Your task to perform on an android device: Go to eBay Image 0: 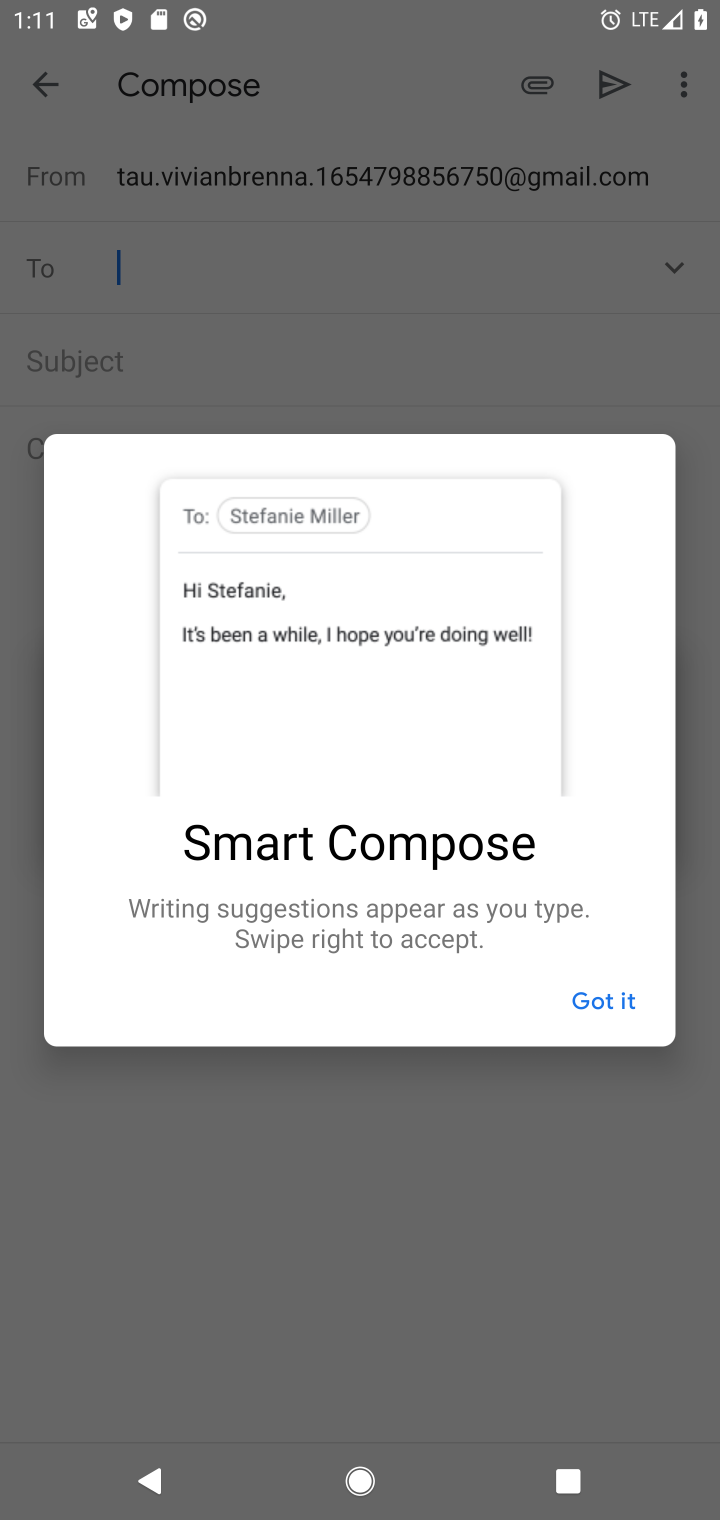
Step 0: press home button
Your task to perform on an android device: Go to eBay Image 1: 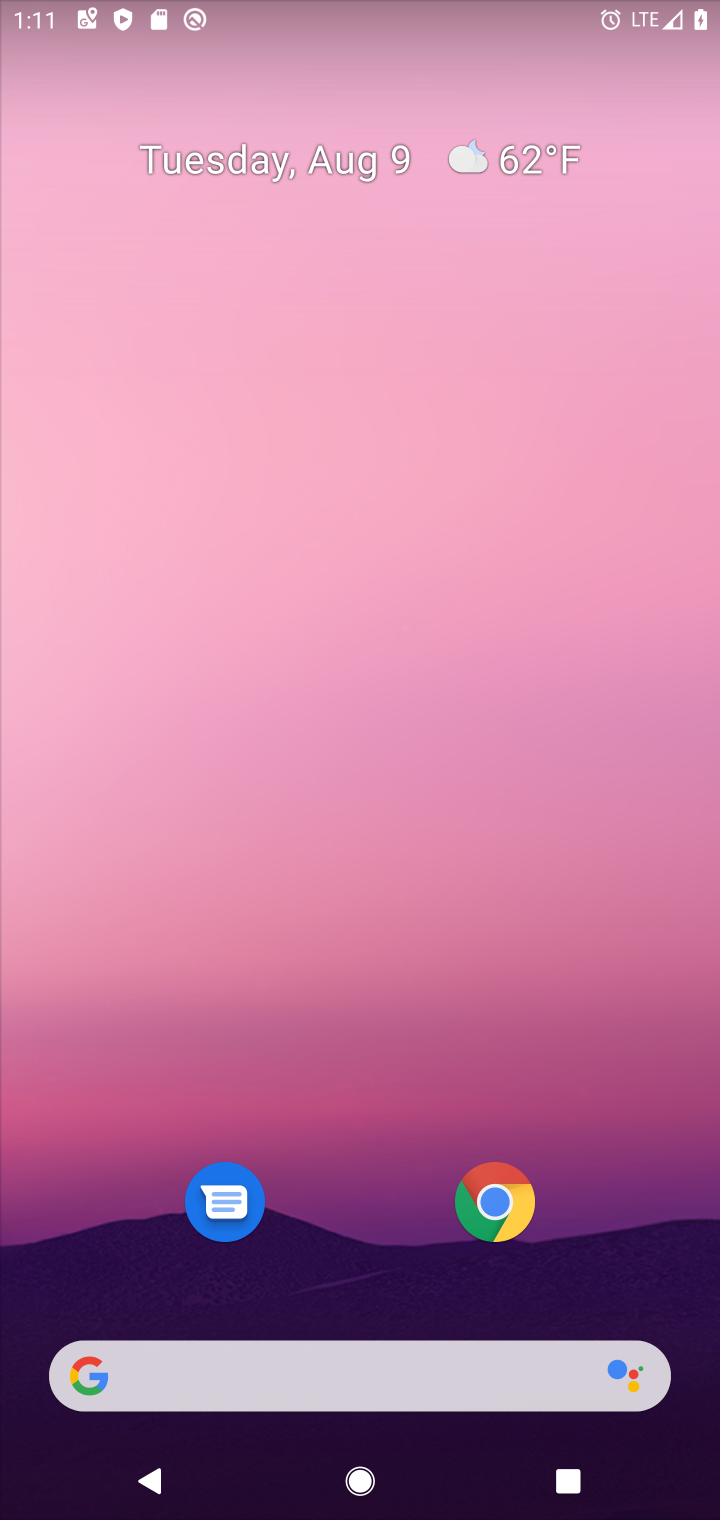
Step 1: click (501, 1201)
Your task to perform on an android device: Go to eBay Image 2: 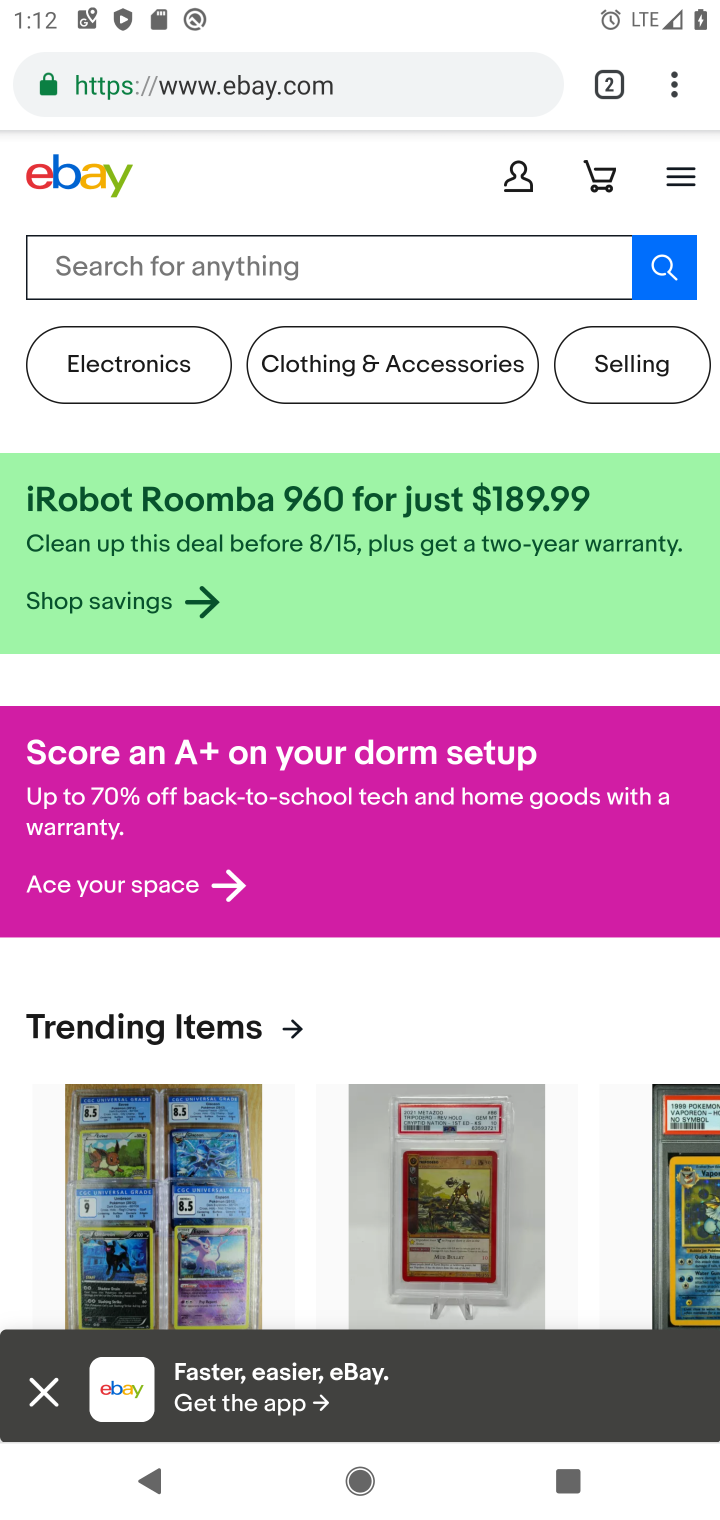
Step 2: task complete